Your task to perform on an android device: Check the weather Image 0: 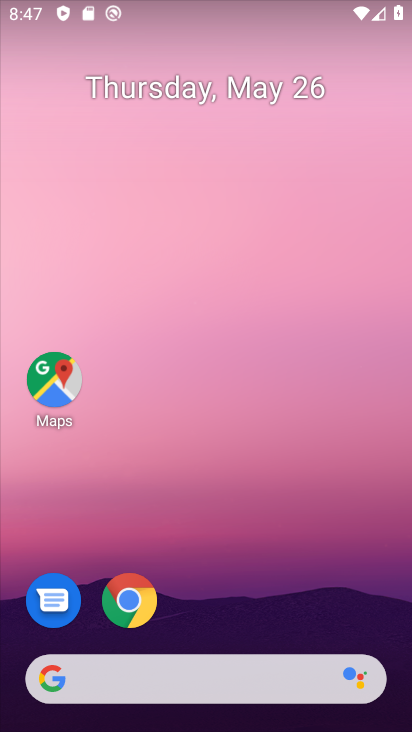
Step 0: click (166, 686)
Your task to perform on an android device: Check the weather Image 1: 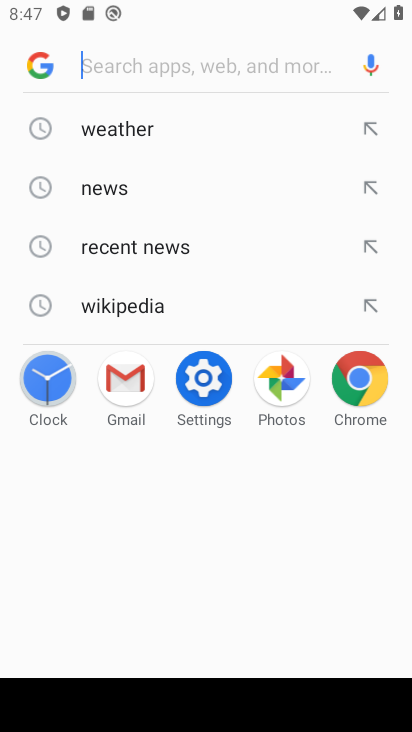
Step 1: click (139, 131)
Your task to perform on an android device: Check the weather Image 2: 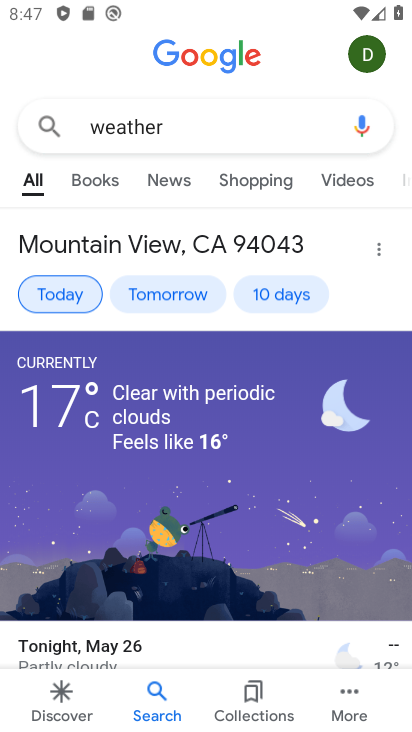
Step 2: task complete